Your task to perform on an android device: delete a single message in the gmail app Image 0: 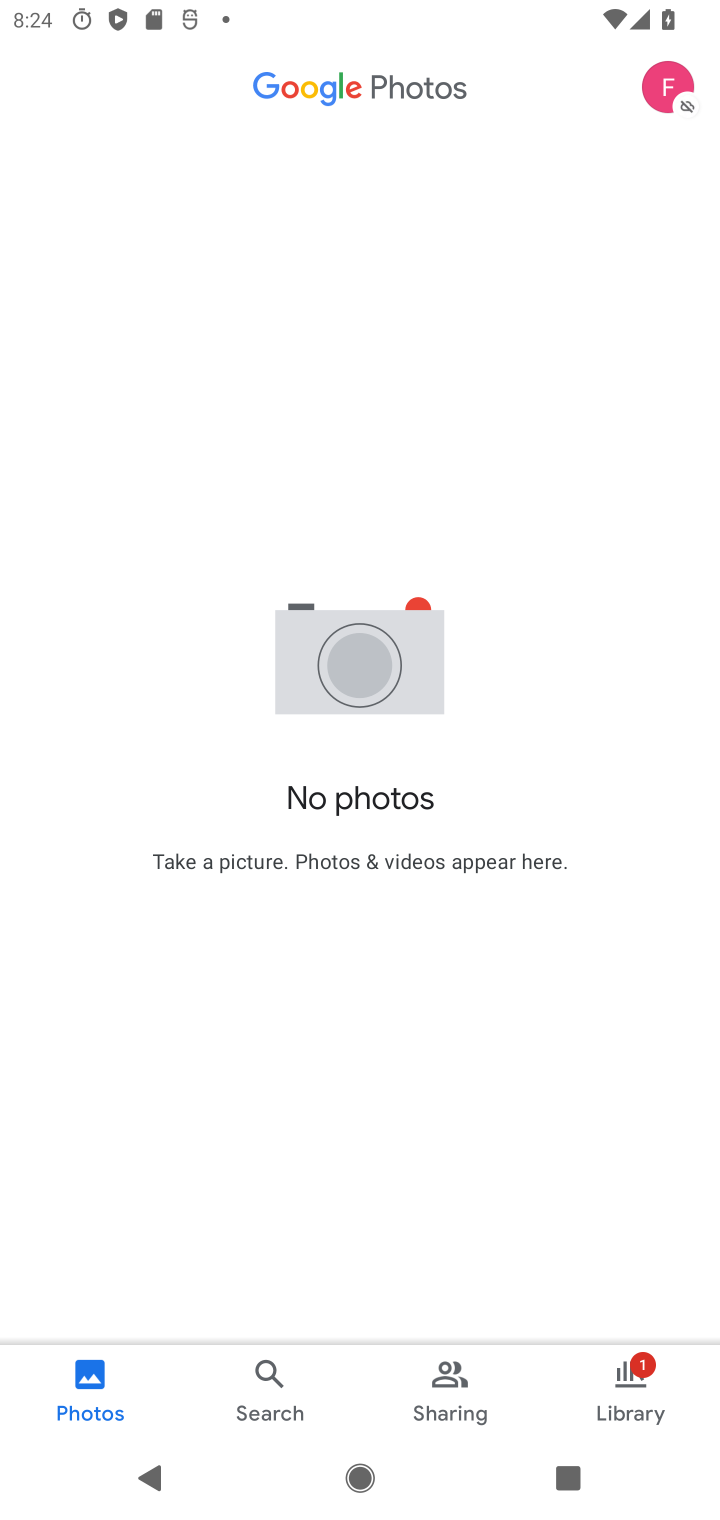
Step 0: press home button
Your task to perform on an android device: delete a single message in the gmail app Image 1: 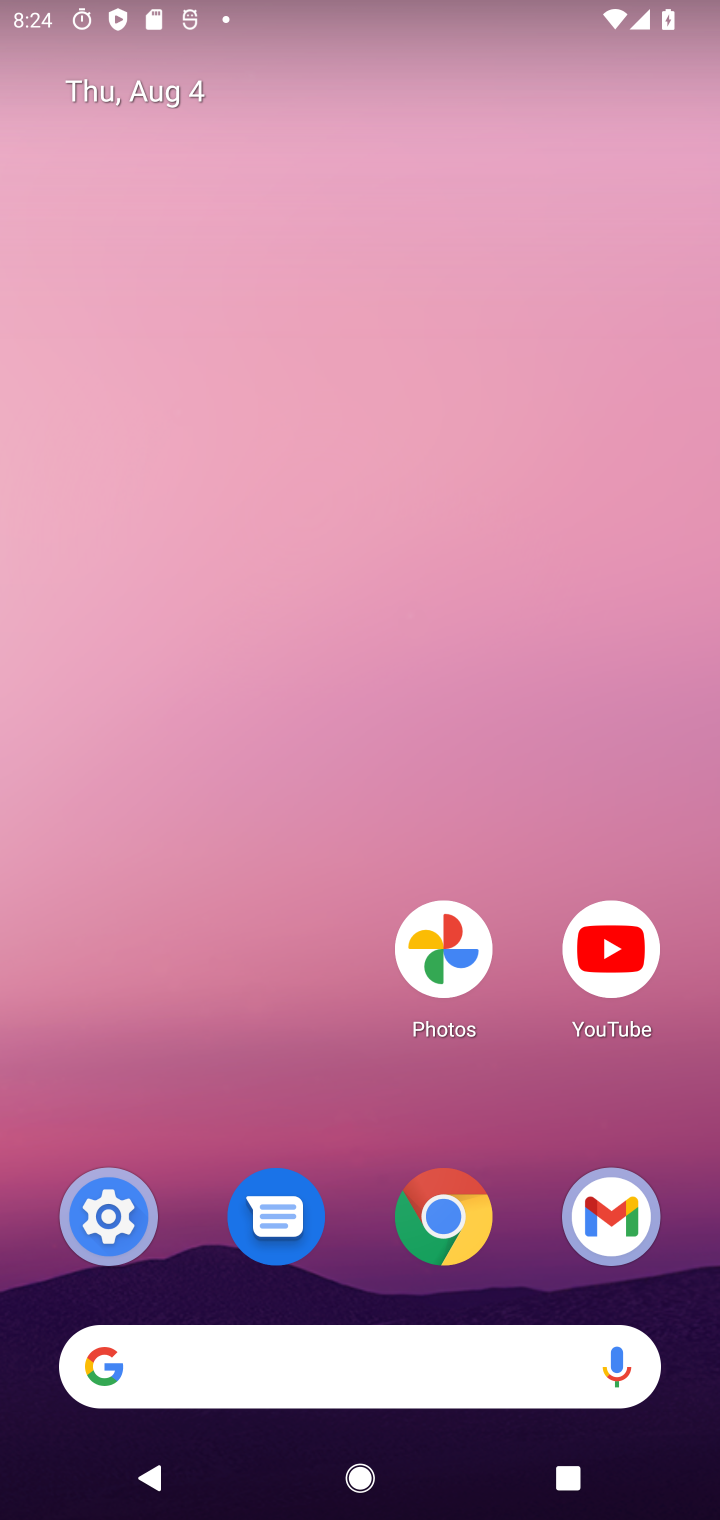
Step 1: drag from (358, 1242) to (353, 90)
Your task to perform on an android device: delete a single message in the gmail app Image 2: 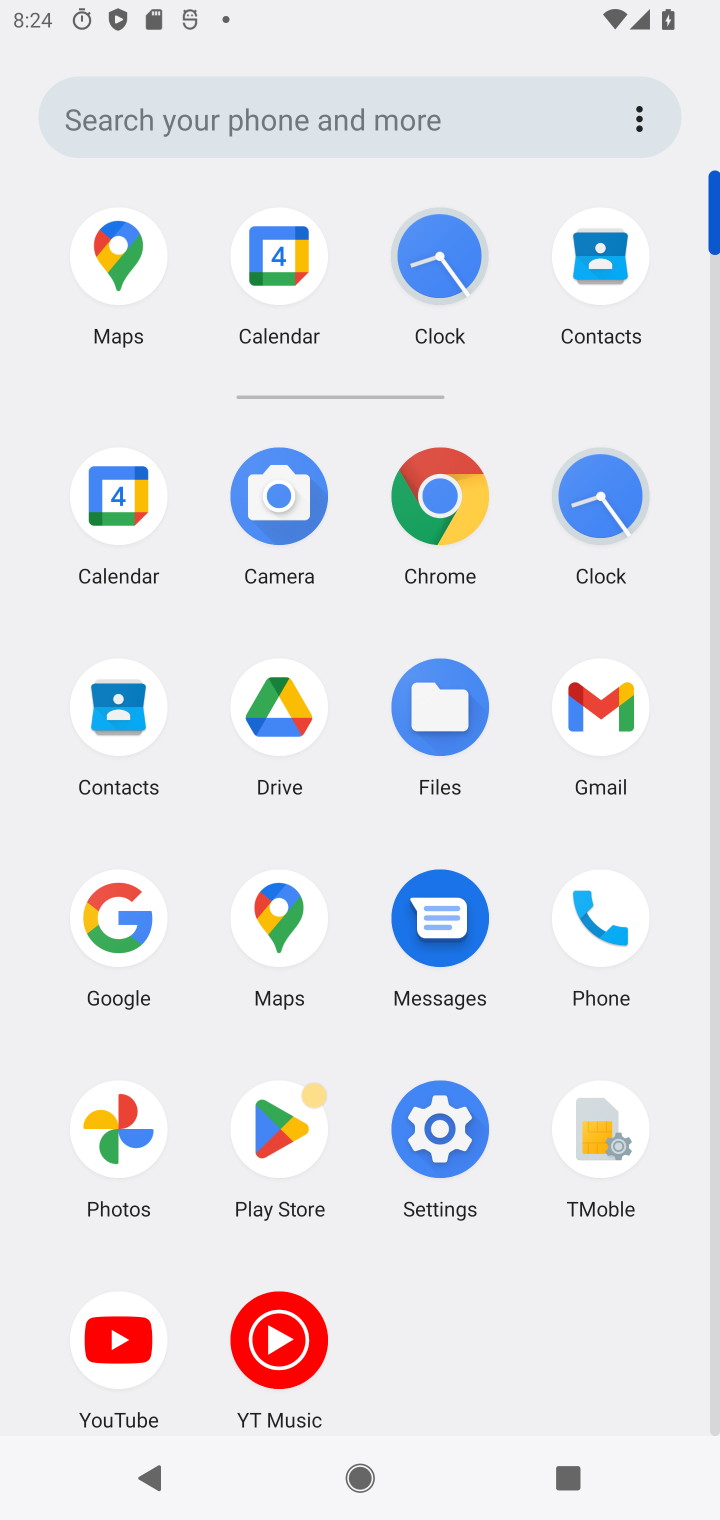
Step 2: click (603, 705)
Your task to perform on an android device: delete a single message in the gmail app Image 3: 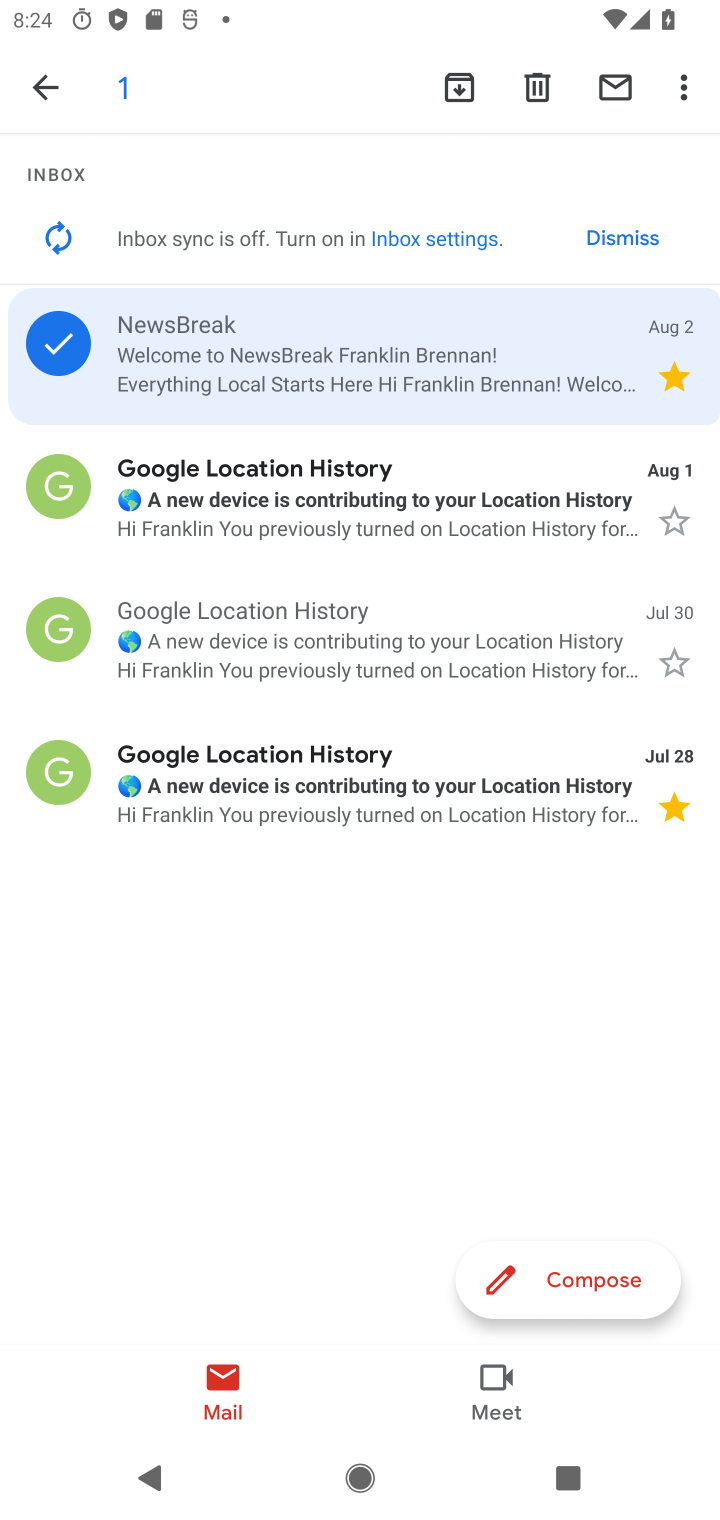
Step 3: click (538, 85)
Your task to perform on an android device: delete a single message in the gmail app Image 4: 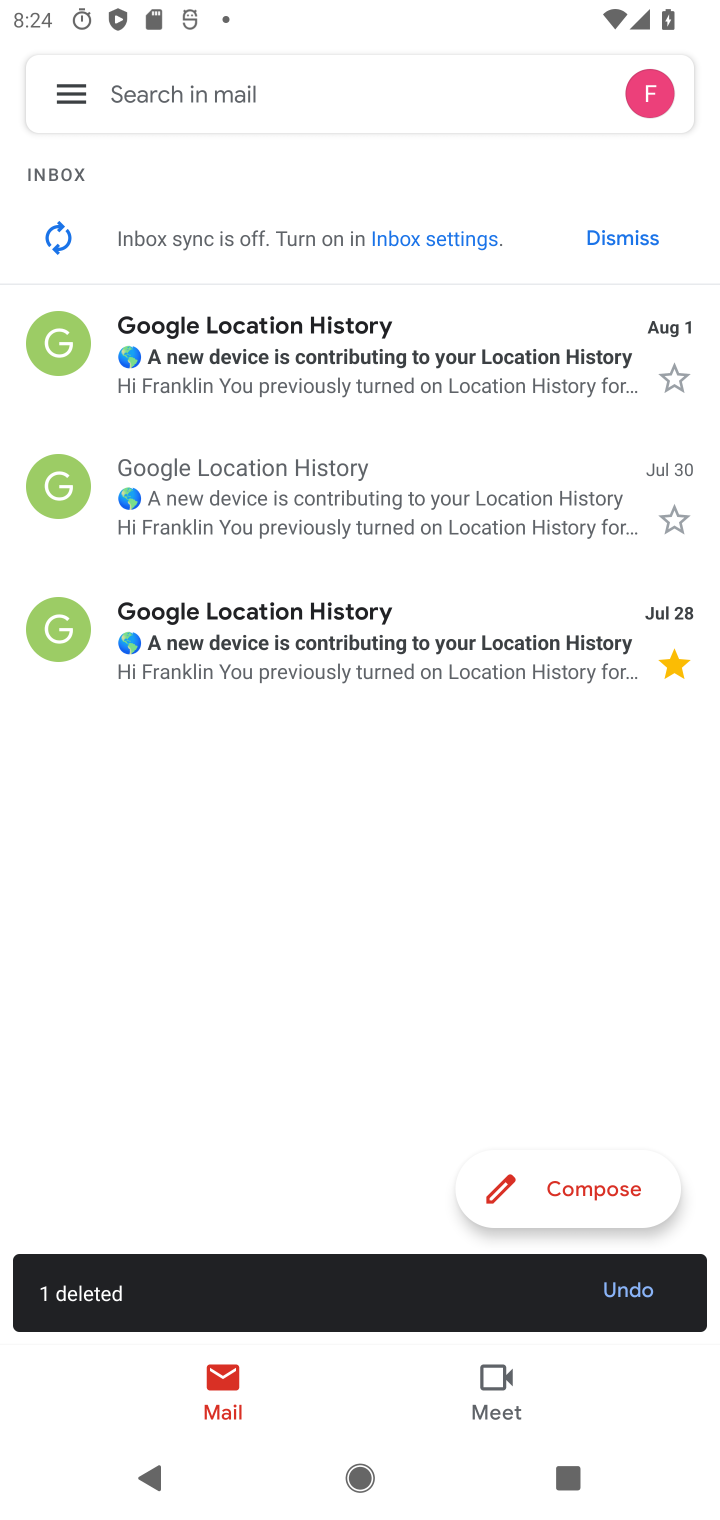
Step 4: task complete